Your task to perform on an android device: Go to Google Image 0: 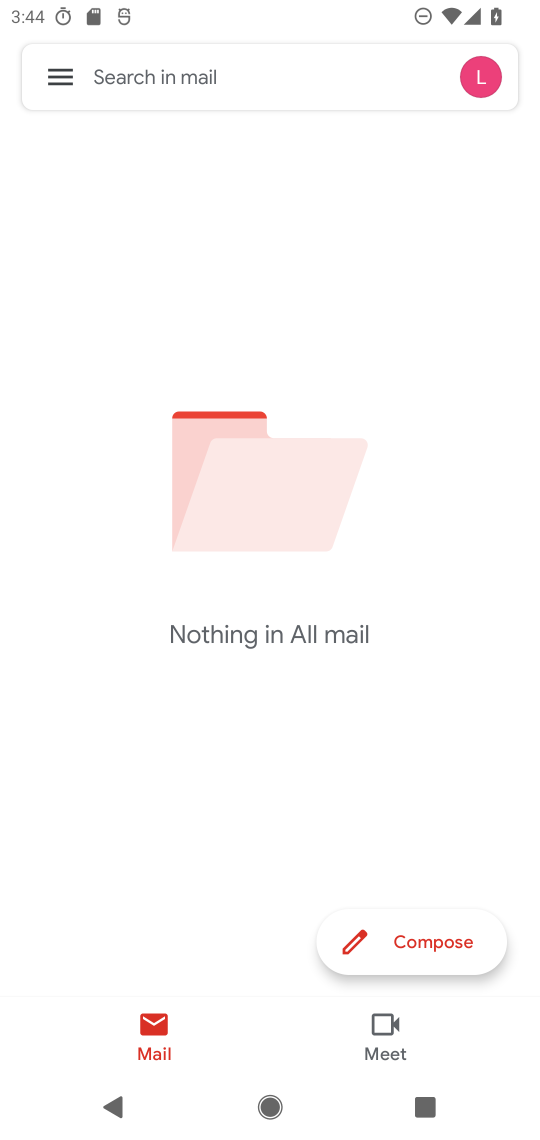
Step 0: press home button
Your task to perform on an android device: Go to Google Image 1: 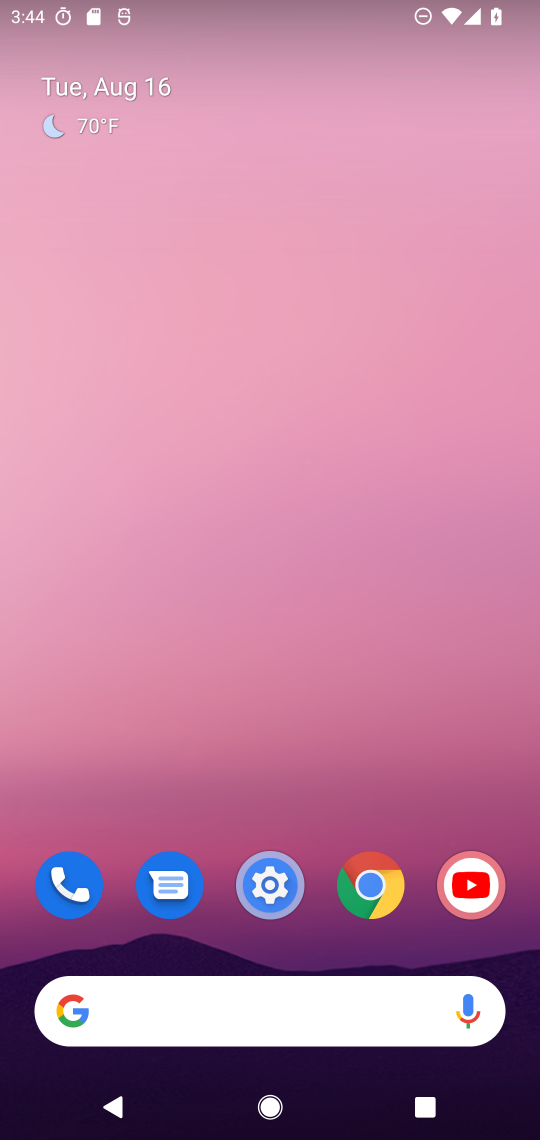
Step 1: drag from (280, 963) to (333, 163)
Your task to perform on an android device: Go to Google Image 2: 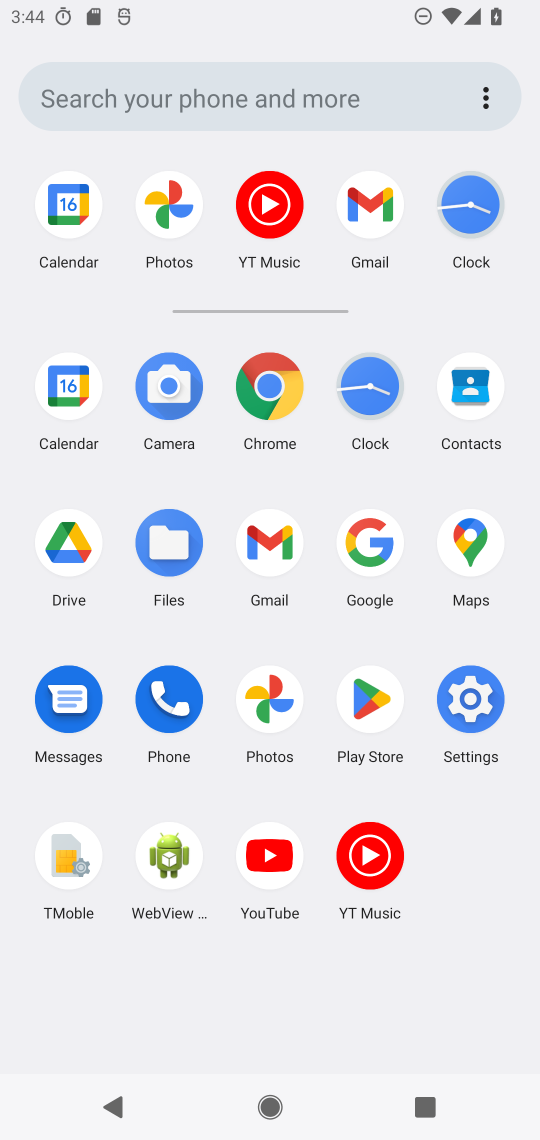
Step 2: click (372, 543)
Your task to perform on an android device: Go to Google Image 3: 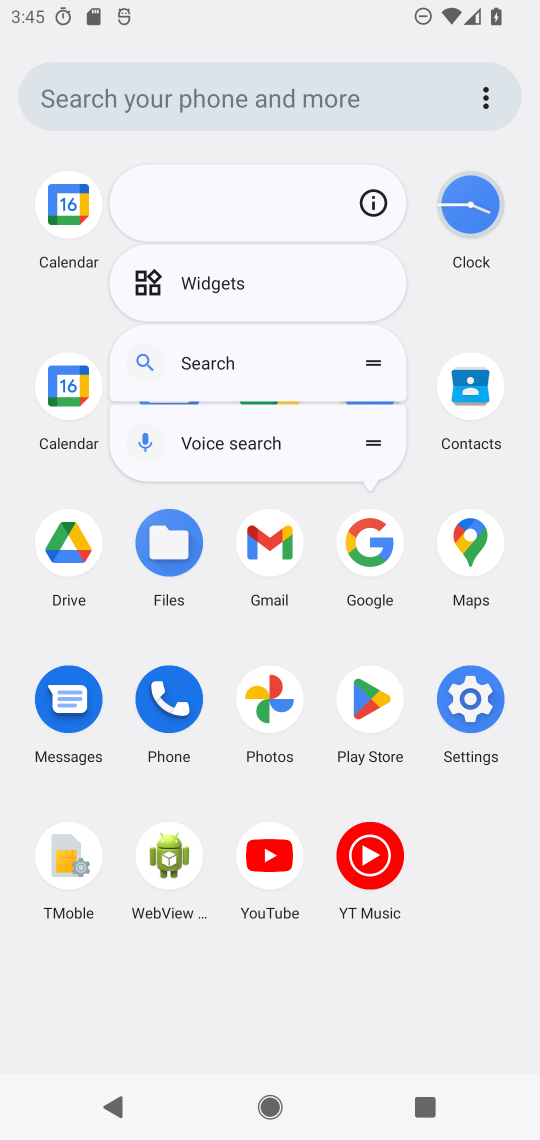
Step 3: click (366, 539)
Your task to perform on an android device: Go to Google Image 4: 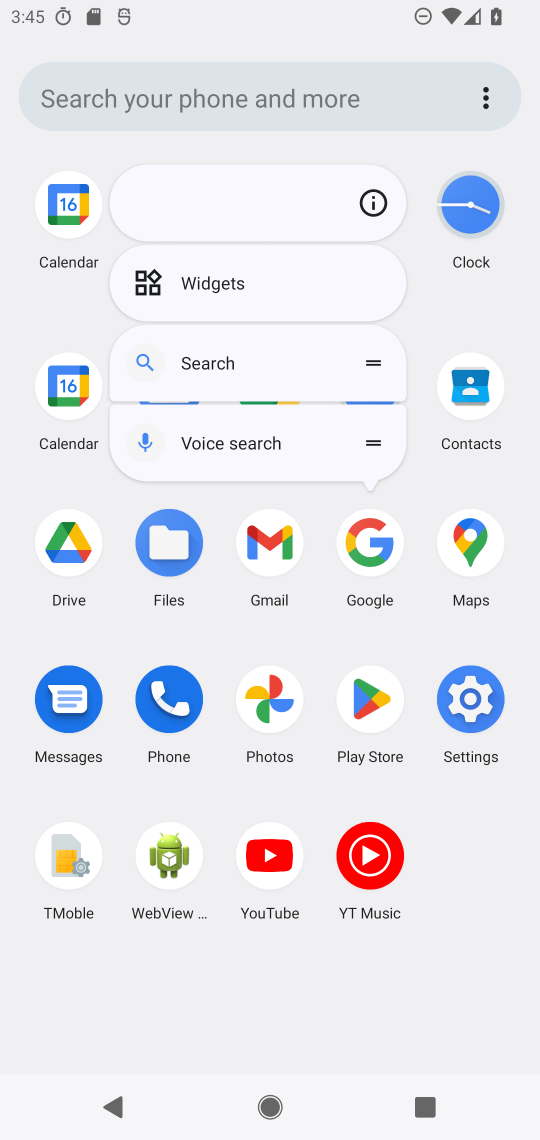
Step 4: click (366, 539)
Your task to perform on an android device: Go to Google Image 5: 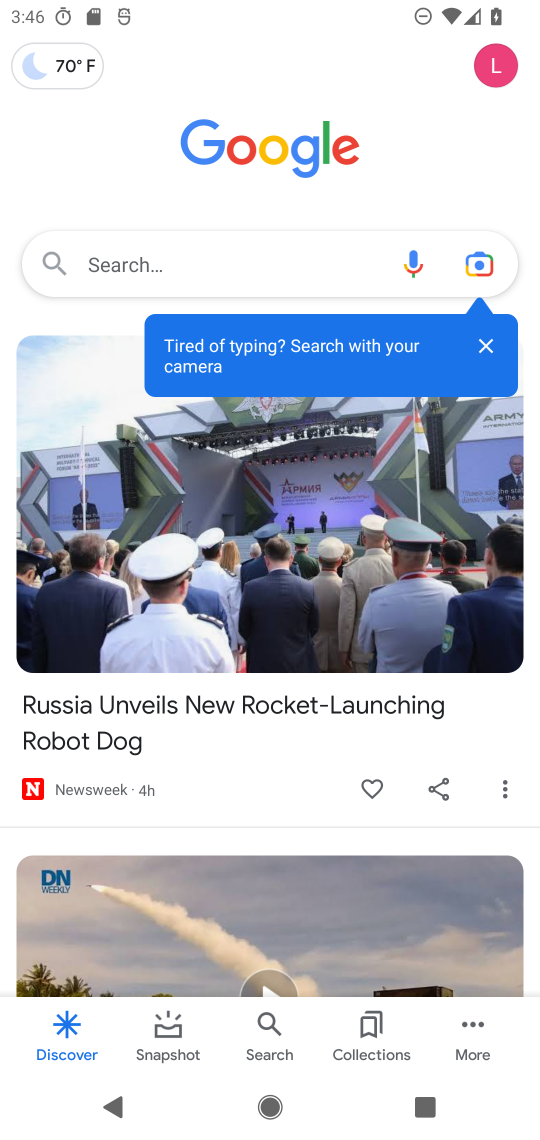
Step 5: task complete